Your task to perform on an android device: move a message to another label in the gmail app Image 0: 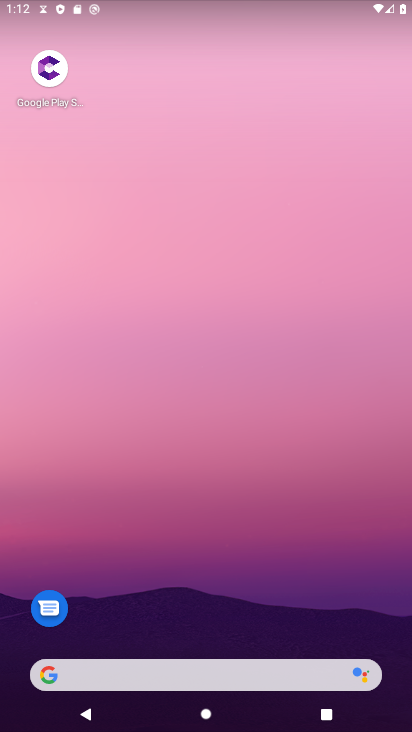
Step 0: drag from (161, 674) to (293, 158)
Your task to perform on an android device: move a message to another label in the gmail app Image 1: 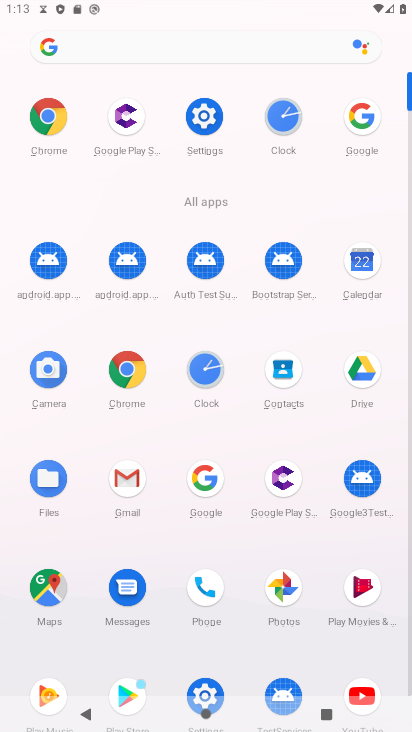
Step 1: click (128, 483)
Your task to perform on an android device: move a message to another label in the gmail app Image 2: 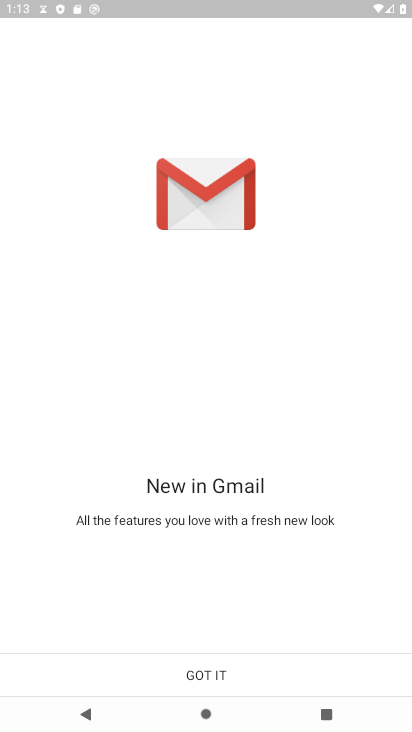
Step 2: click (216, 679)
Your task to perform on an android device: move a message to another label in the gmail app Image 3: 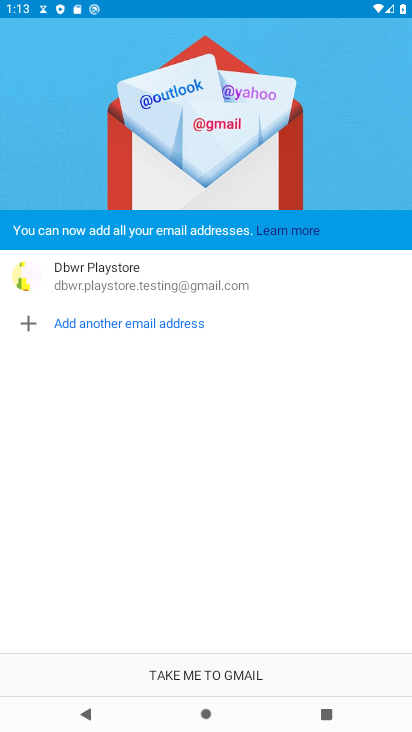
Step 3: click (214, 672)
Your task to perform on an android device: move a message to another label in the gmail app Image 4: 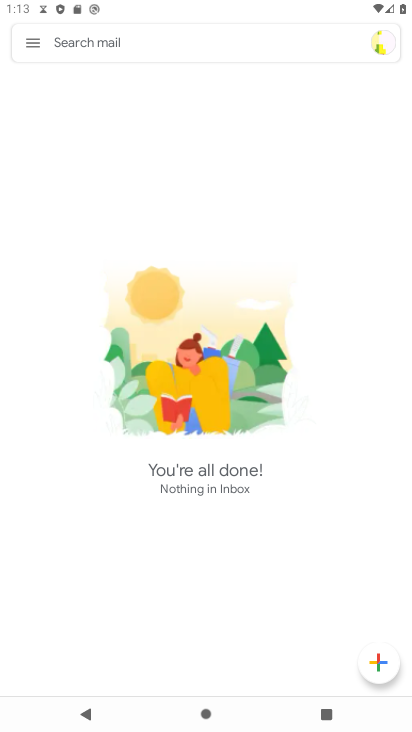
Step 4: task complete